Your task to perform on an android device: move an email to a new category in the gmail app Image 0: 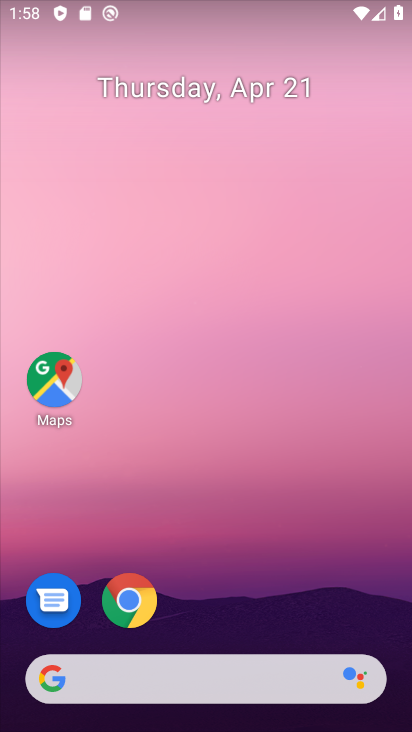
Step 0: drag from (311, 601) to (293, 97)
Your task to perform on an android device: move an email to a new category in the gmail app Image 1: 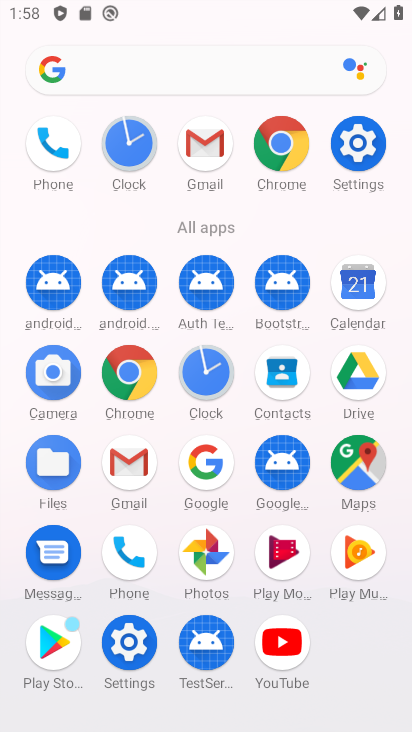
Step 1: click (133, 465)
Your task to perform on an android device: move an email to a new category in the gmail app Image 2: 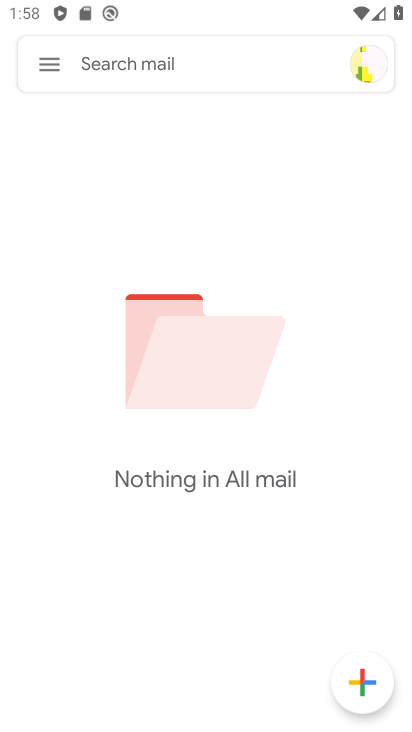
Step 2: task complete